Your task to perform on an android device: change notifications settings Image 0: 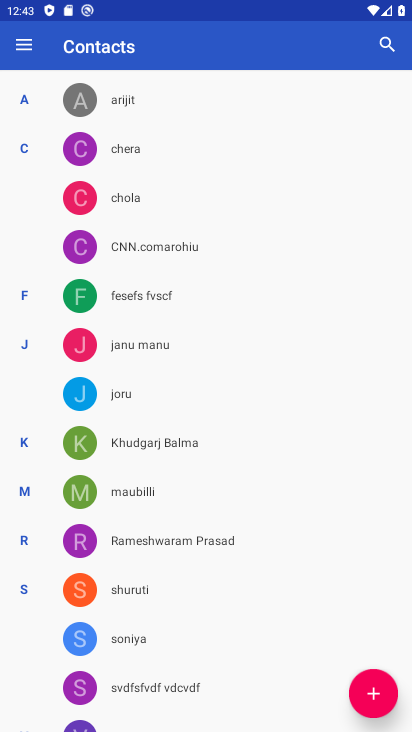
Step 0: press home button
Your task to perform on an android device: change notifications settings Image 1: 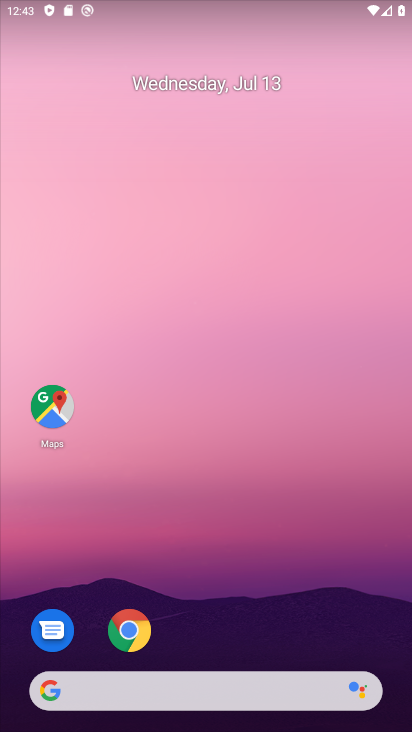
Step 1: drag from (21, 709) to (217, 135)
Your task to perform on an android device: change notifications settings Image 2: 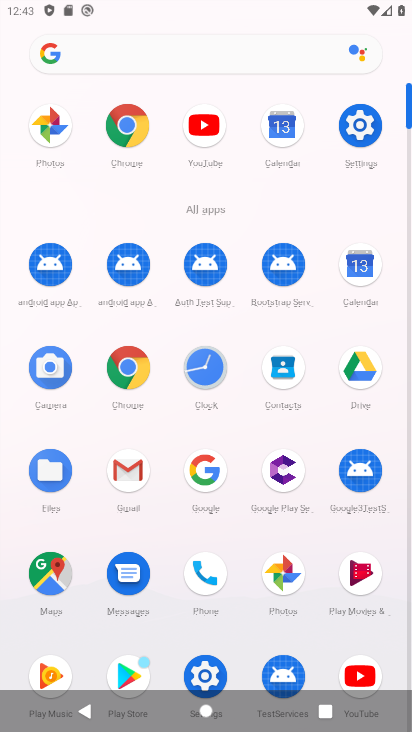
Step 2: click (204, 672)
Your task to perform on an android device: change notifications settings Image 3: 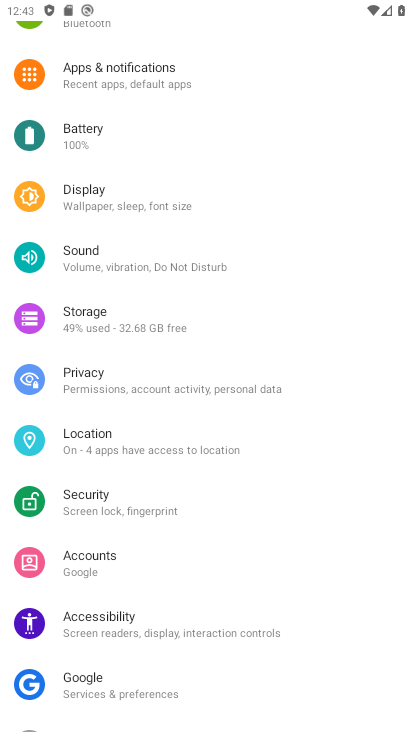
Step 3: click (122, 88)
Your task to perform on an android device: change notifications settings Image 4: 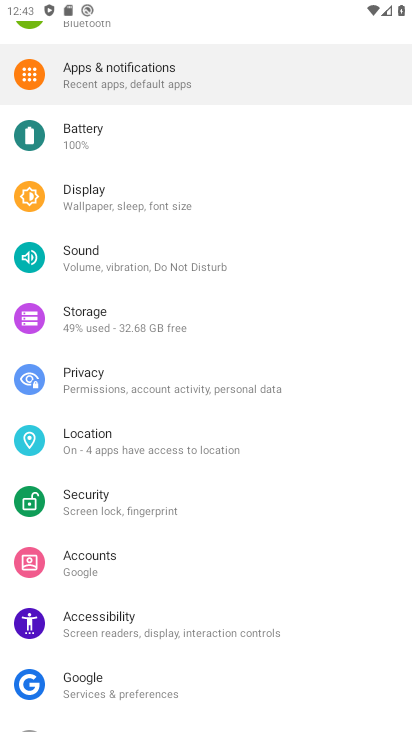
Step 4: click (126, 62)
Your task to perform on an android device: change notifications settings Image 5: 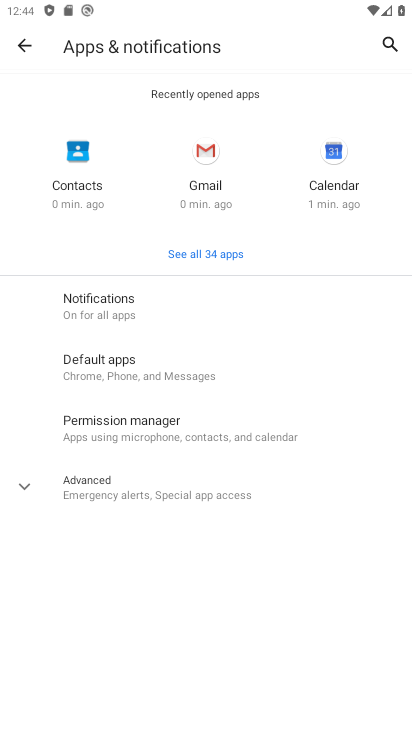
Step 5: click (101, 305)
Your task to perform on an android device: change notifications settings Image 6: 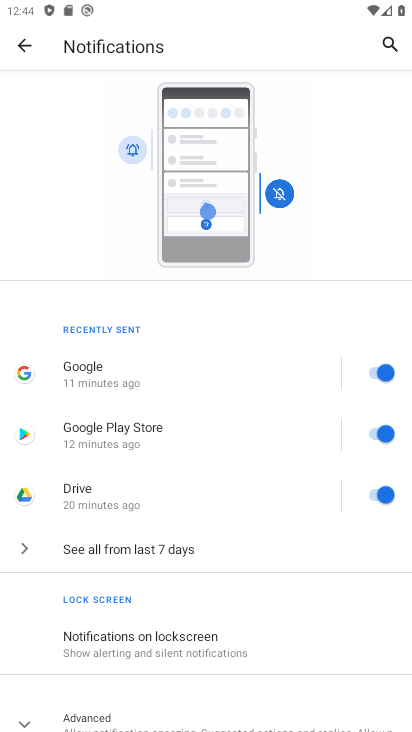
Step 6: task complete